Your task to perform on an android device: Add beats solo 3 to the cart on amazon.com Image 0: 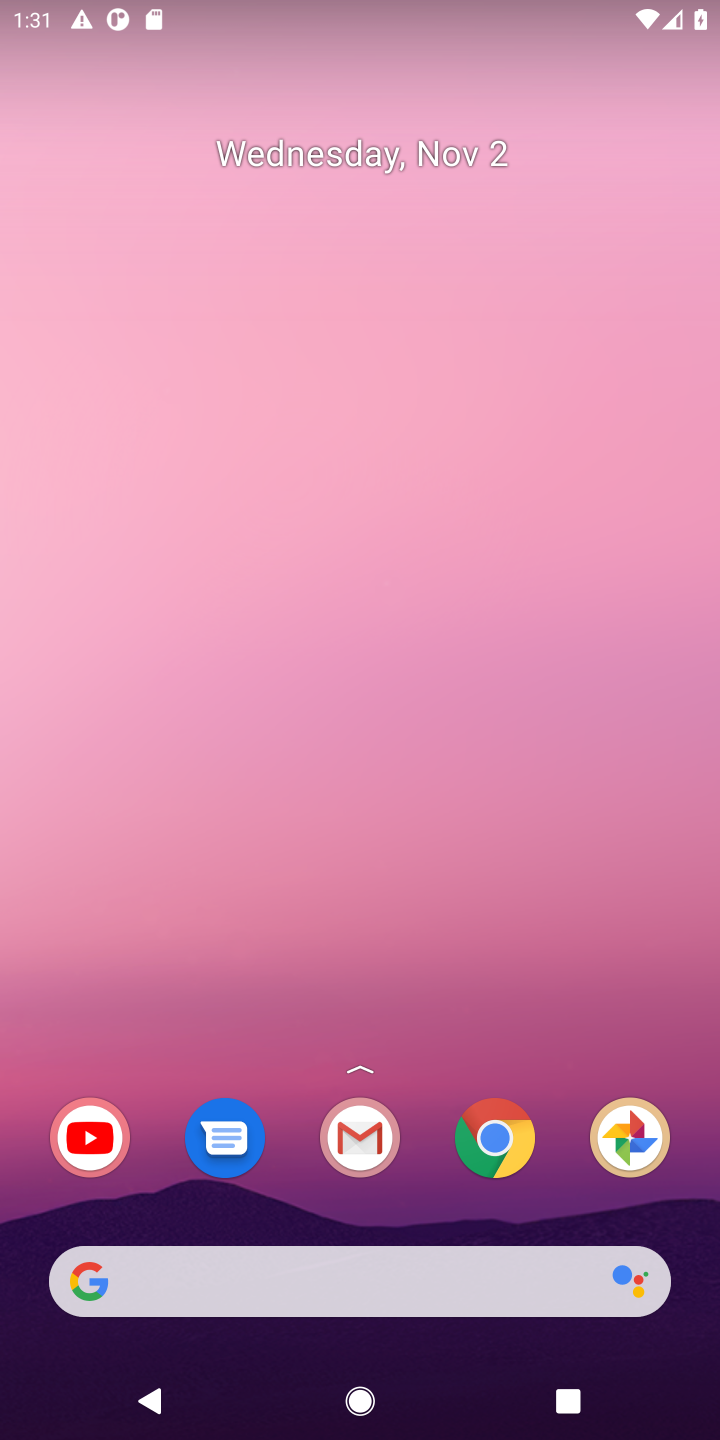
Step 0: press home button
Your task to perform on an android device: Add beats solo 3 to the cart on amazon.com Image 1: 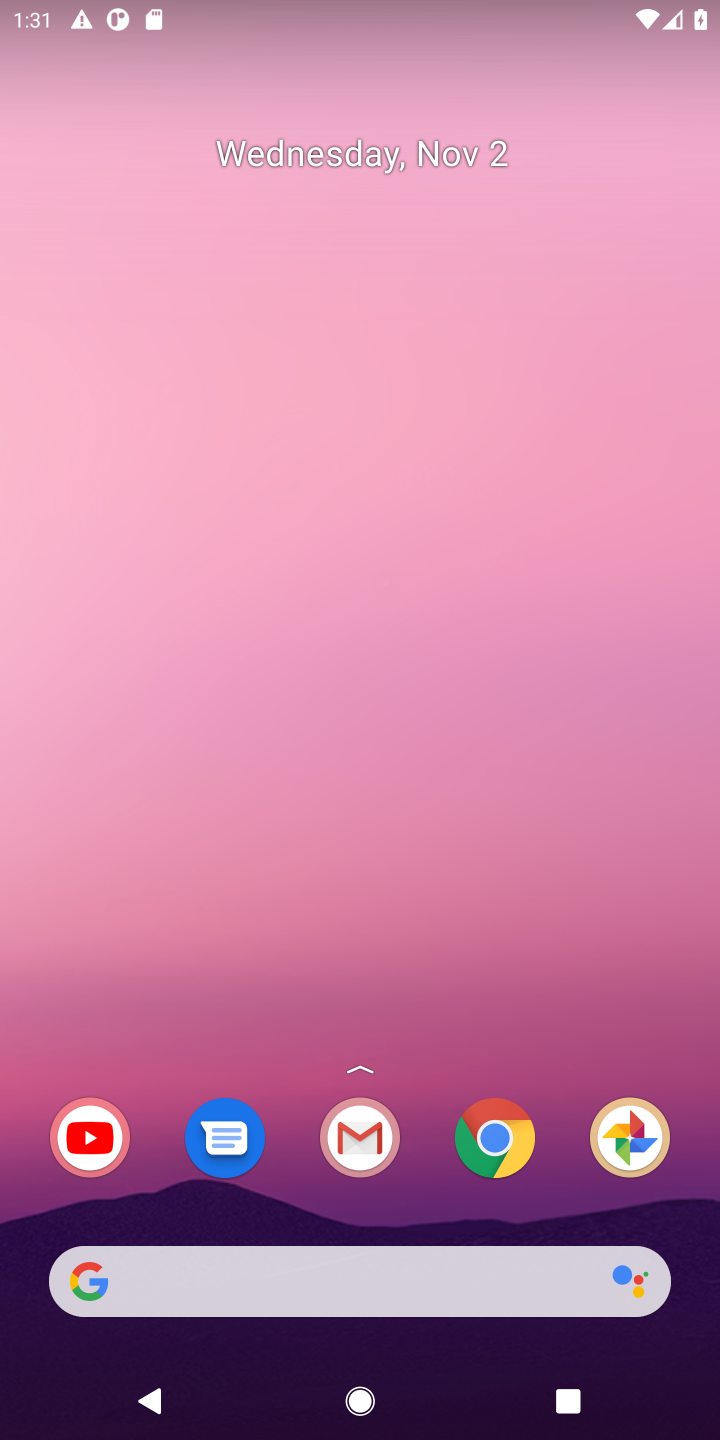
Step 1: click (193, 1267)
Your task to perform on an android device: Add beats solo 3 to the cart on amazon.com Image 2: 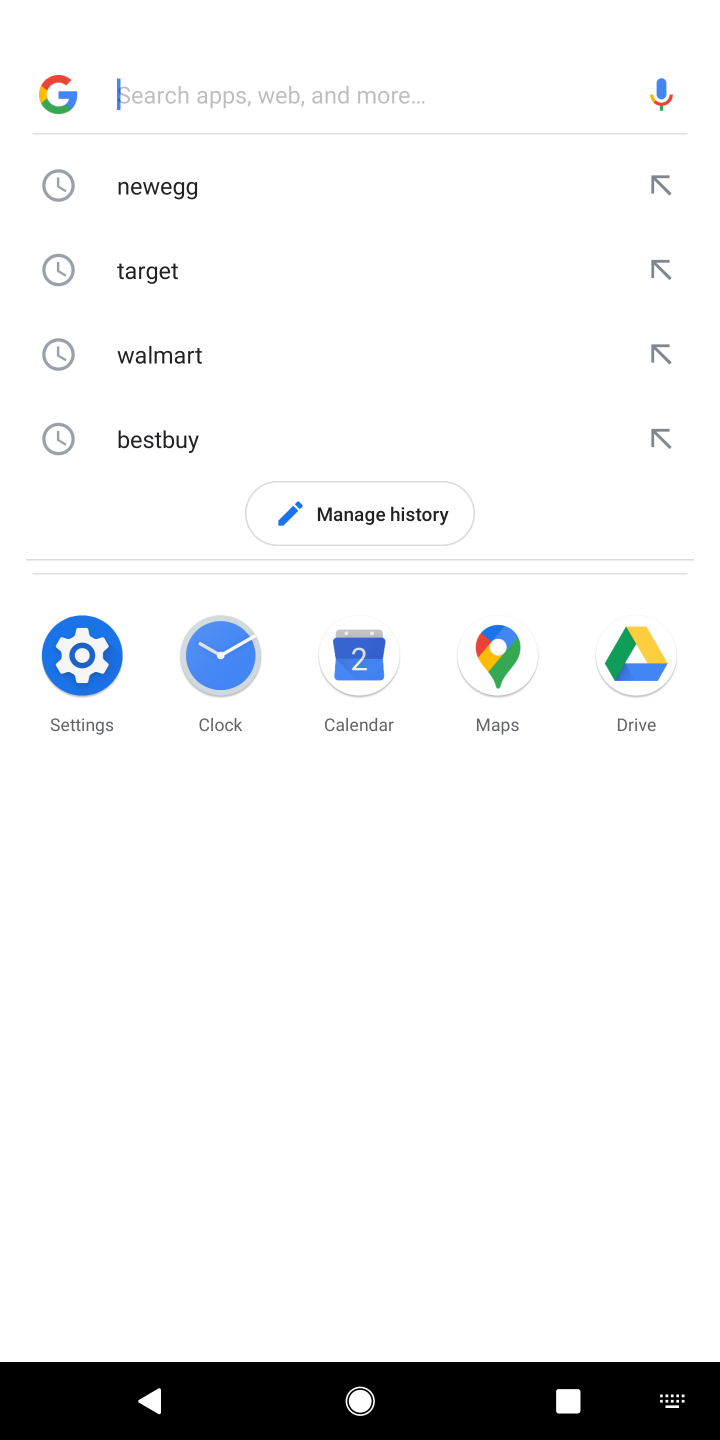
Step 2: type "amazon.com"
Your task to perform on an android device: Add beats solo 3 to the cart on amazon.com Image 3: 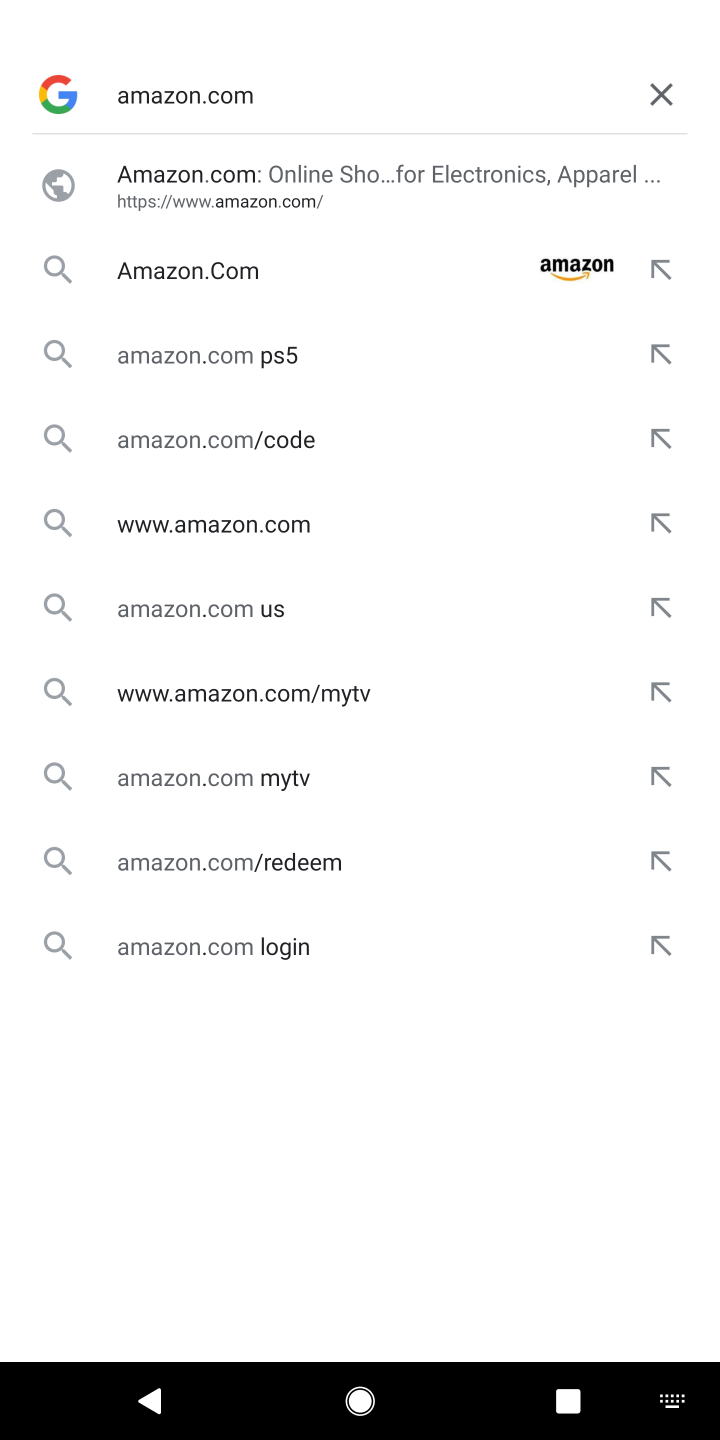
Step 3: press enter
Your task to perform on an android device: Add beats solo 3 to the cart on amazon.com Image 4: 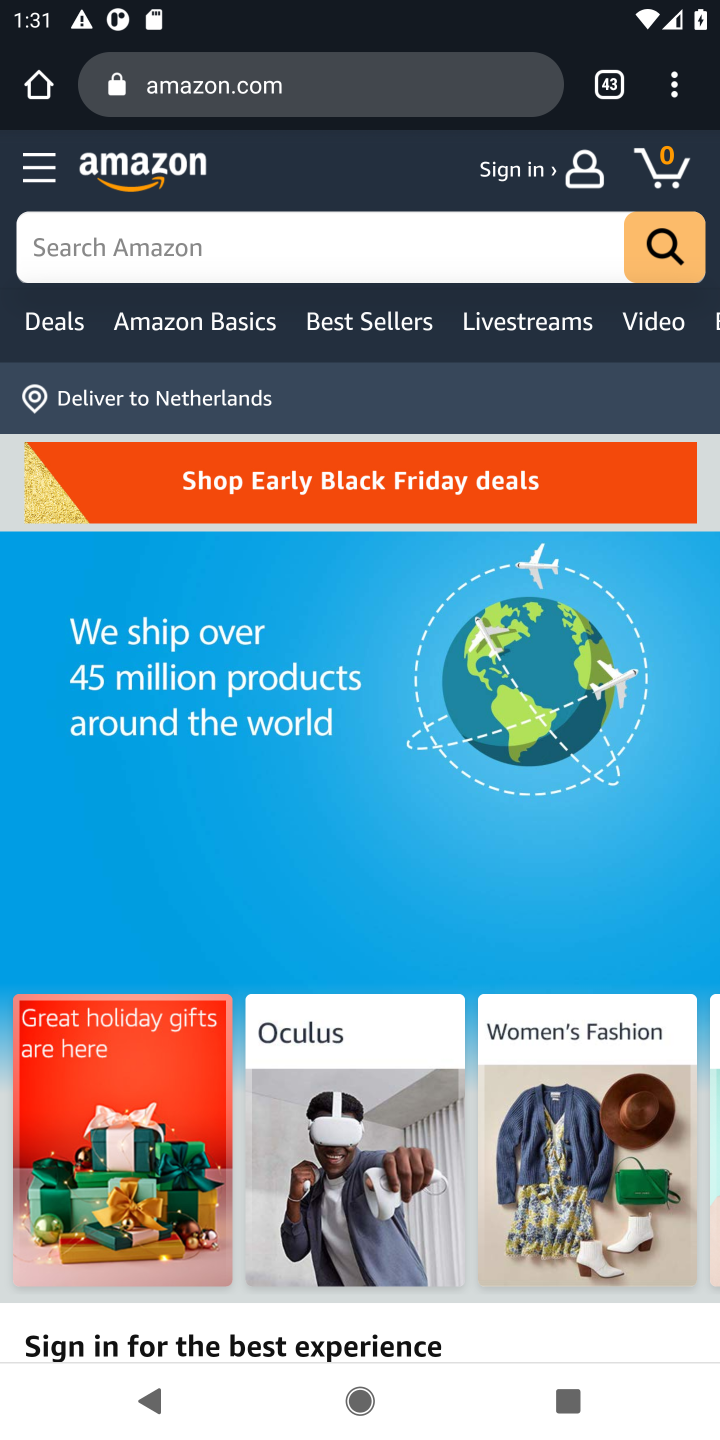
Step 4: click (151, 244)
Your task to perform on an android device: Add beats solo 3 to the cart on amazon.com Image 5: 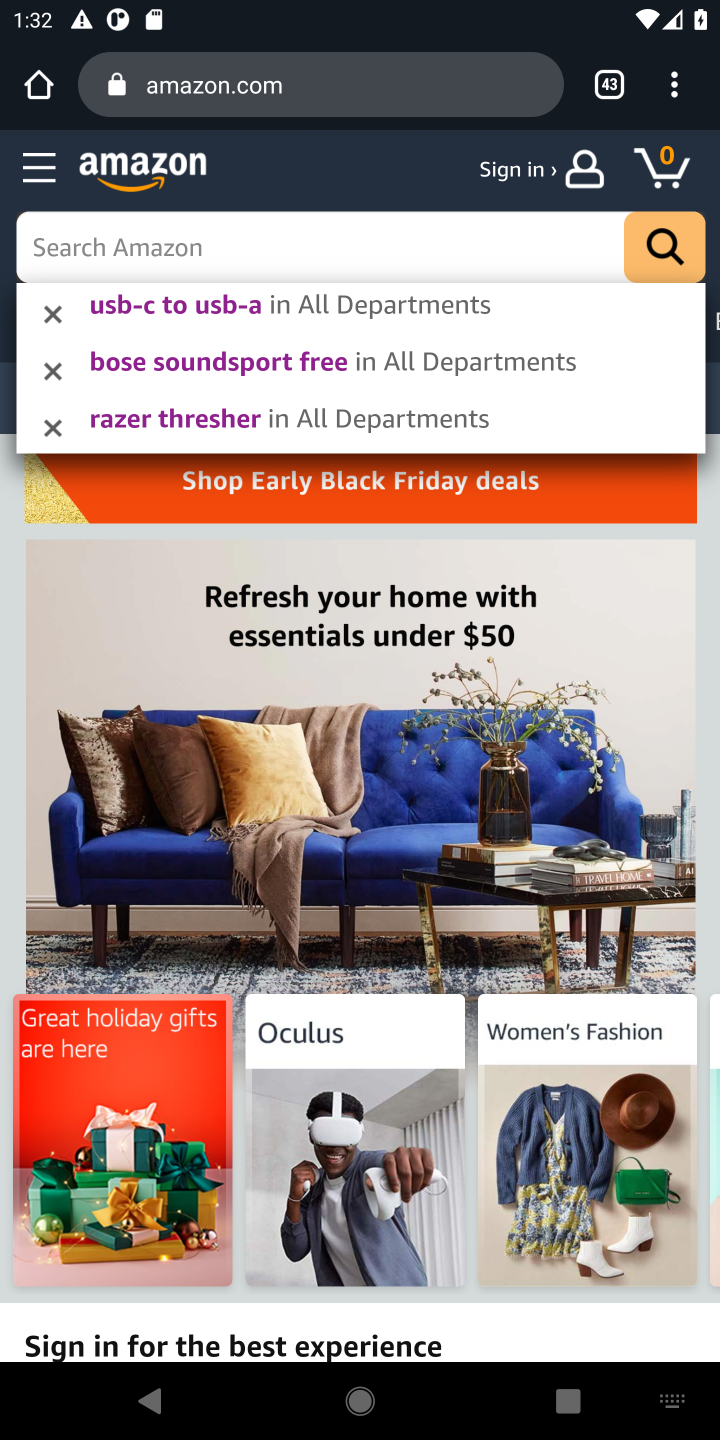
Step 5: type "beats solo 3"
Your task to perform on an android device: Add beats solo 3 to the cart on amazon.com Image 6: 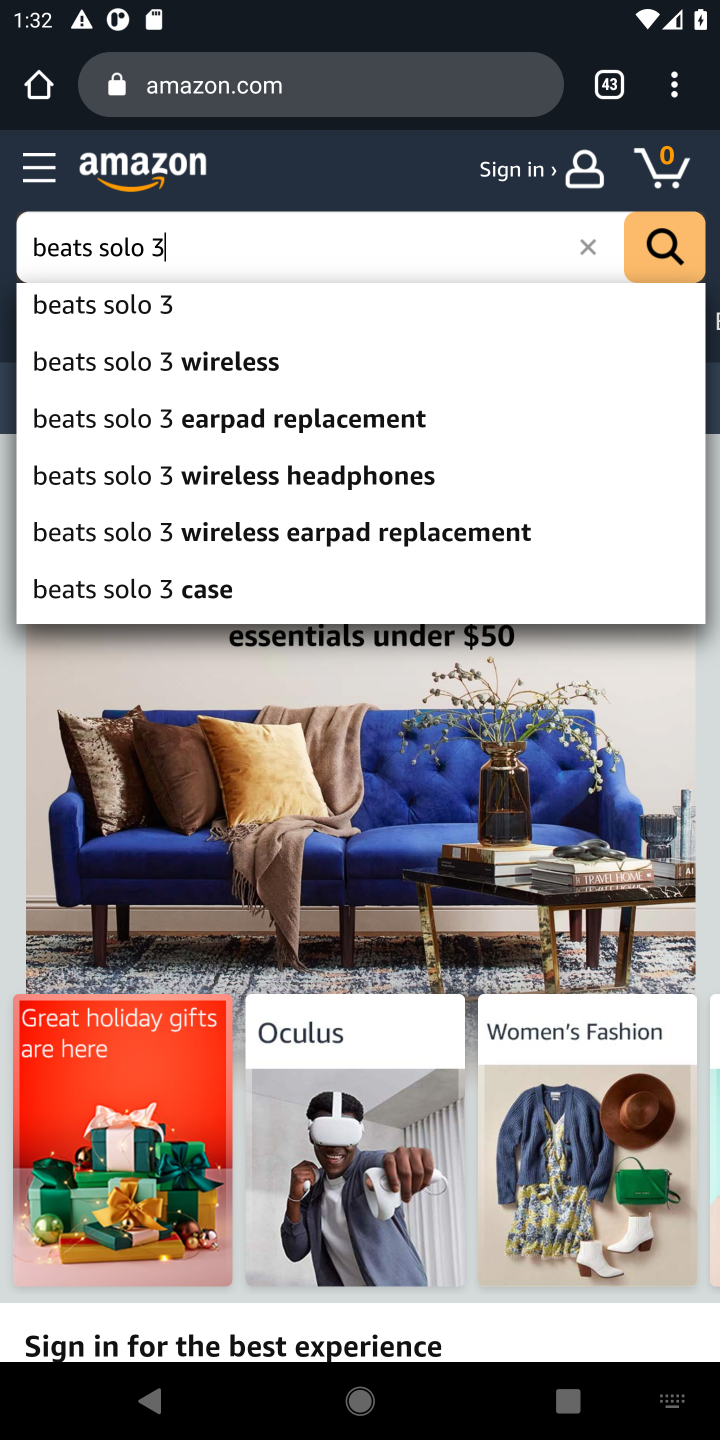
Step 6: click (669, 252)
Your task to perform on an android device: Add beats solo 3 to the cart on amazon.com Image 7: 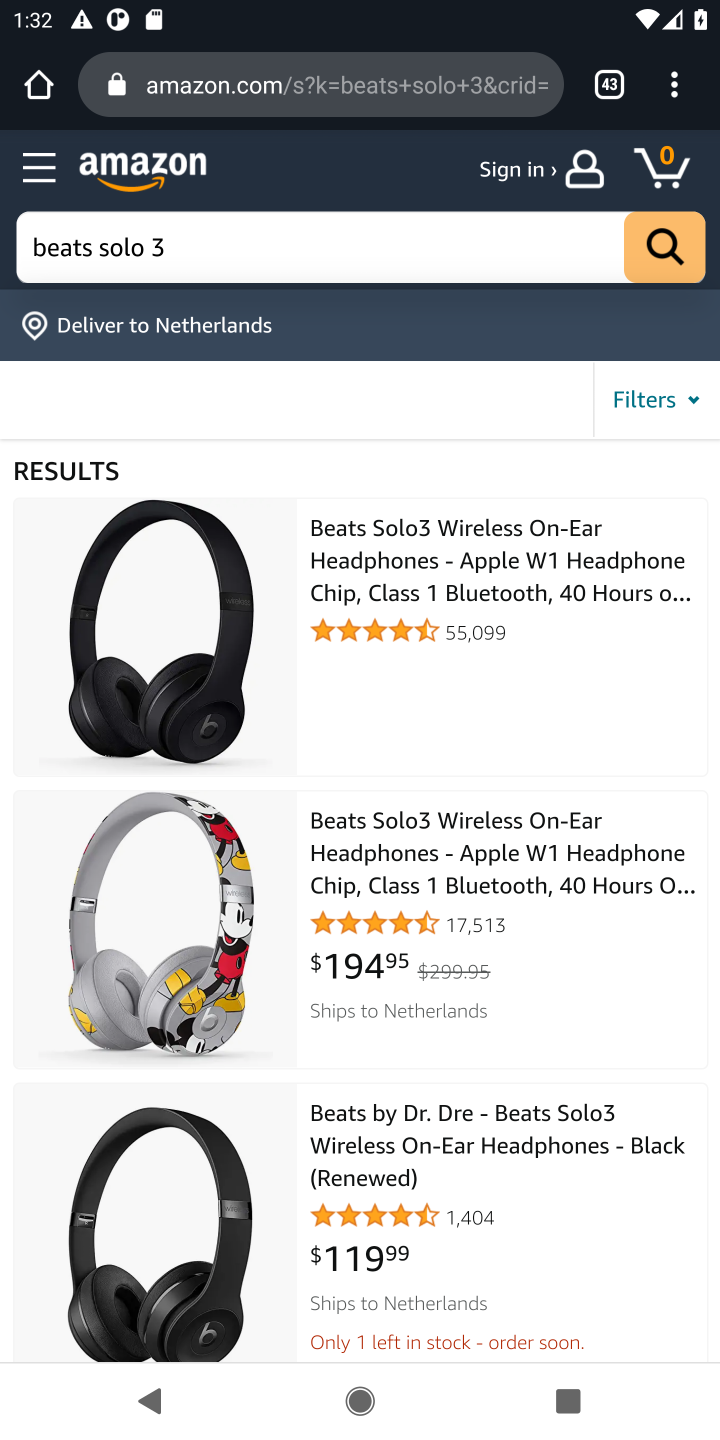
Step 7: click (516, 562)
Your task to perform on an android device: Add beats solo 3 to the cart on amazon.com Image 8: 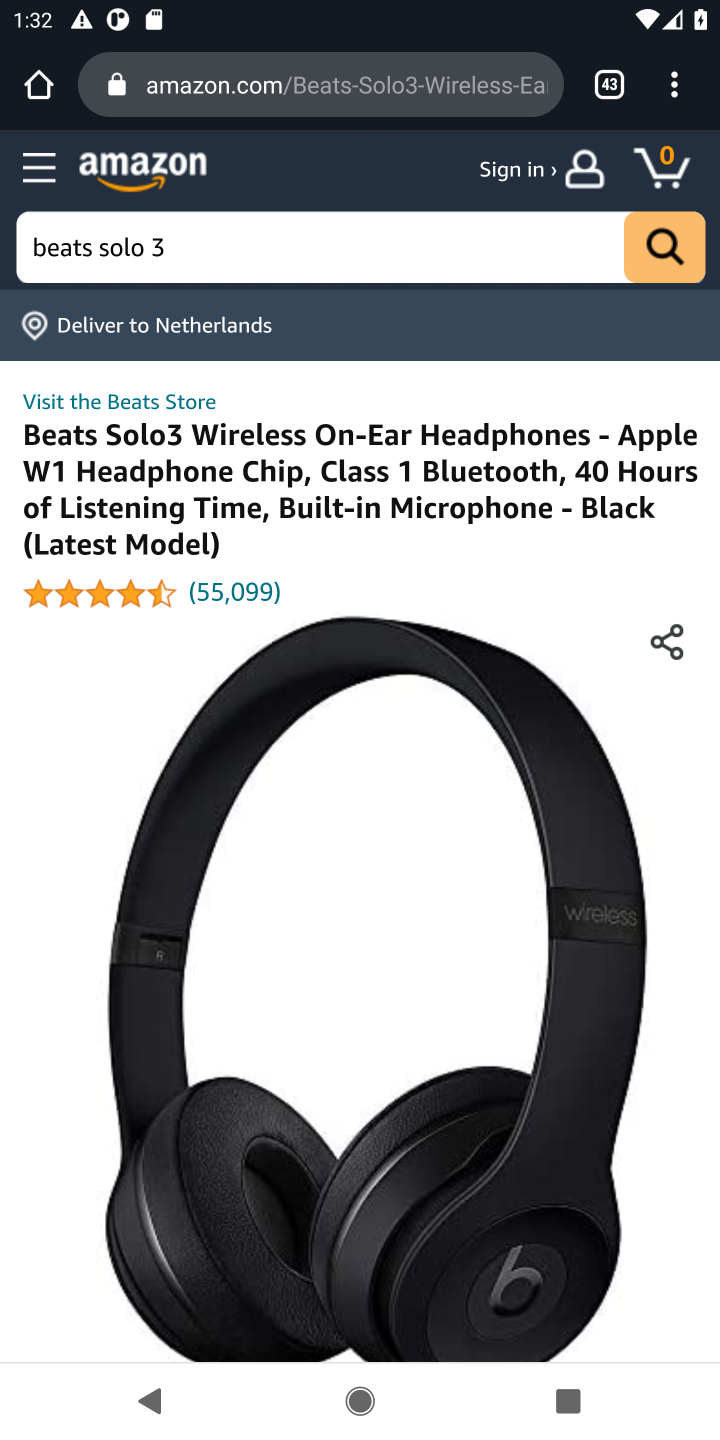
Step 8: drag from (448, 1025) to (465, 632)
Your task to perform on an android device: Add beats solo 3 to the cart on amazon.com Image 9: 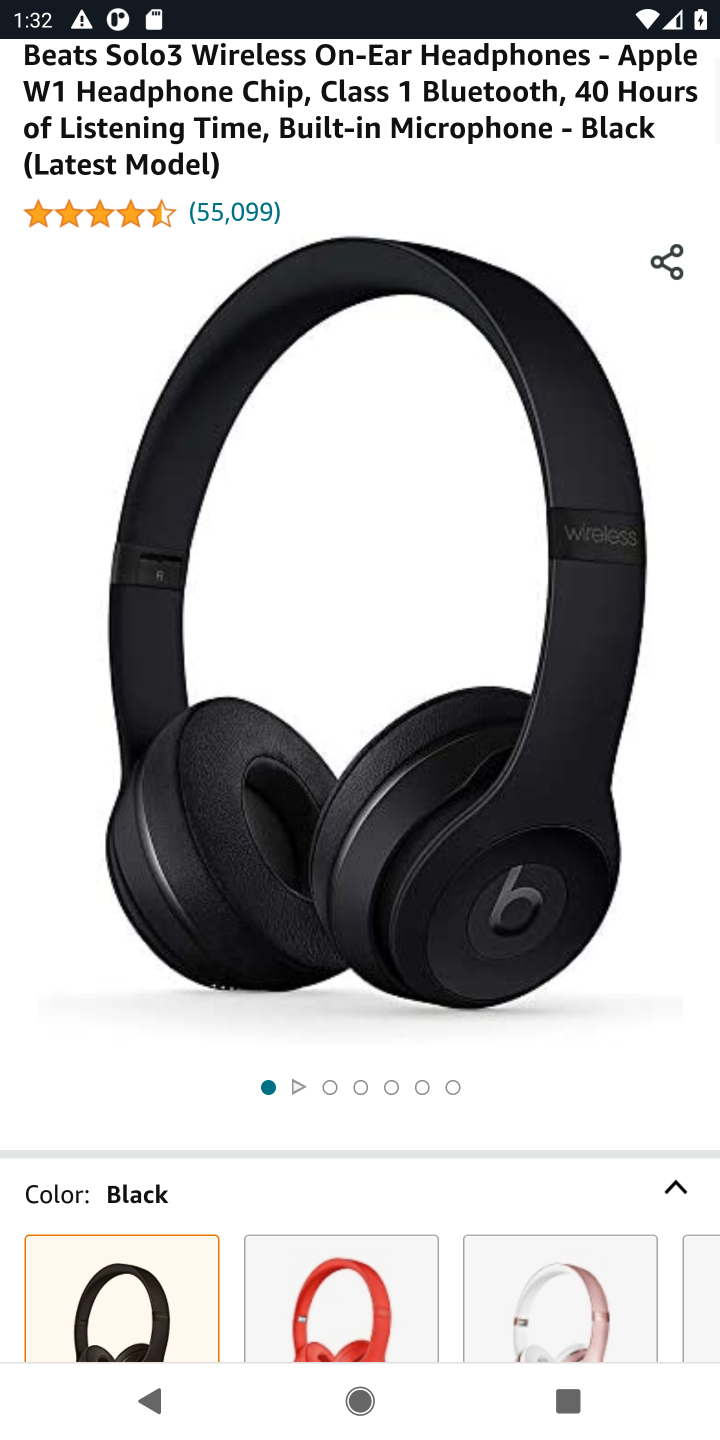
Step 9: drag from (387, 1003) to (479, 592)
Your task to perform on an android device: Add beats solo 3 to the cart on amazon.com Image 10: 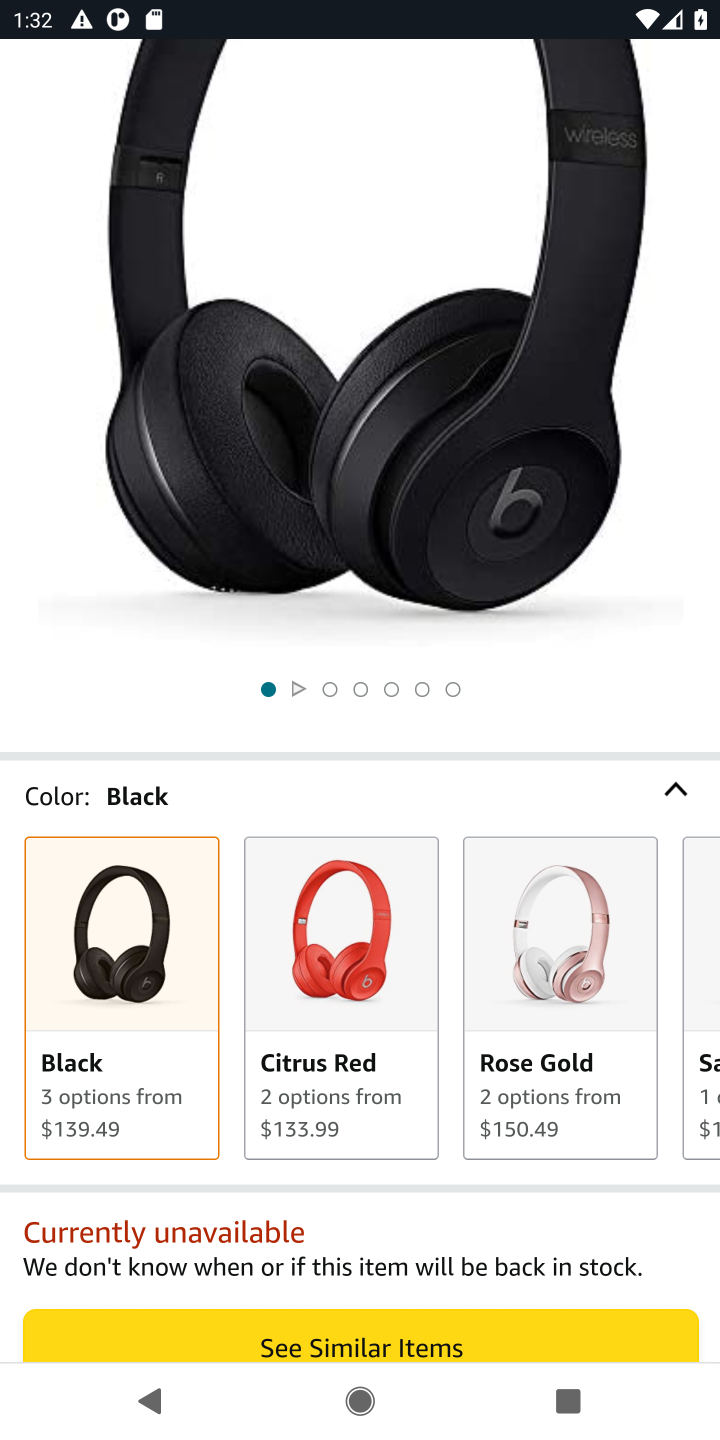
Step 10: drag from (425, 893) to (468, 564)
Your task to perform on an android device: Add beats solo 3 to the cart on amazon.com Image 11: 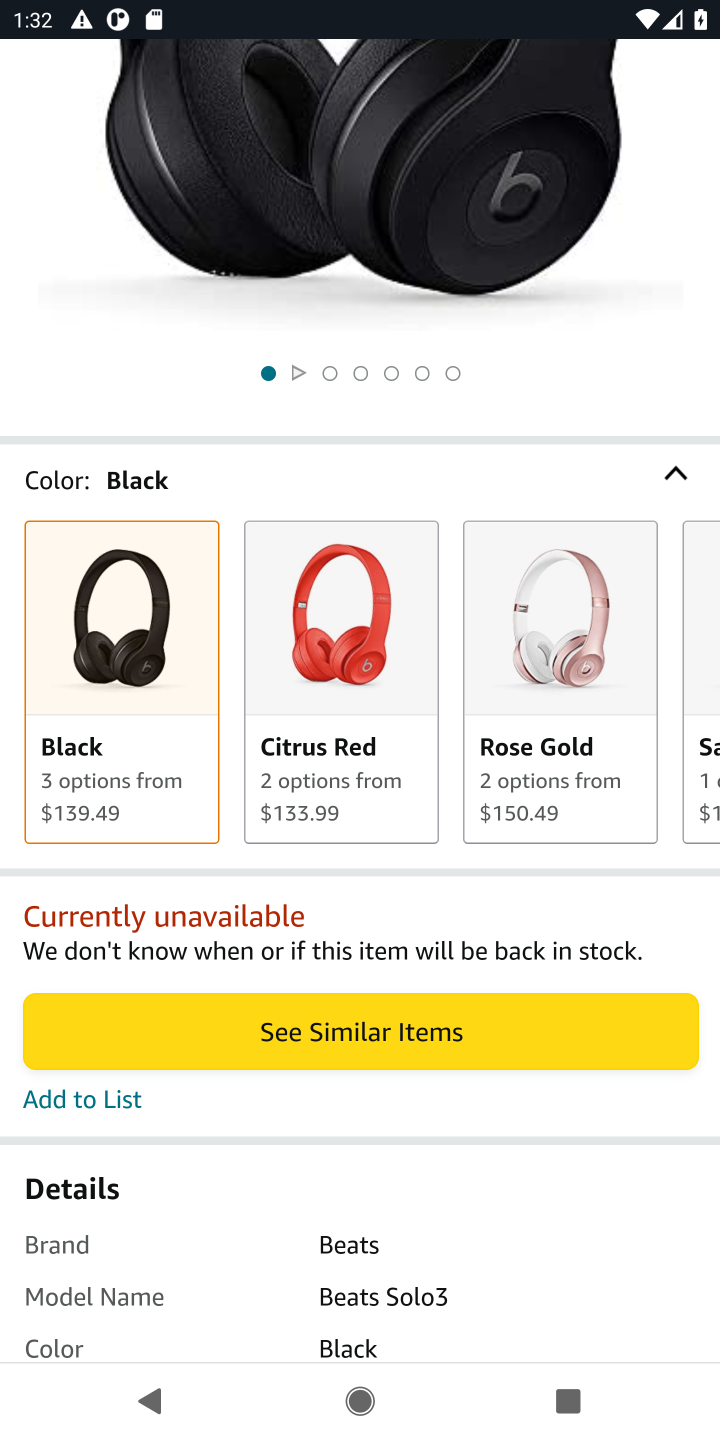
Step 11: drag from (478, 1095) to (542, 667)
Your task to perform on an android device: Add beats solo 3 to the cart on amazon.com Image 12: 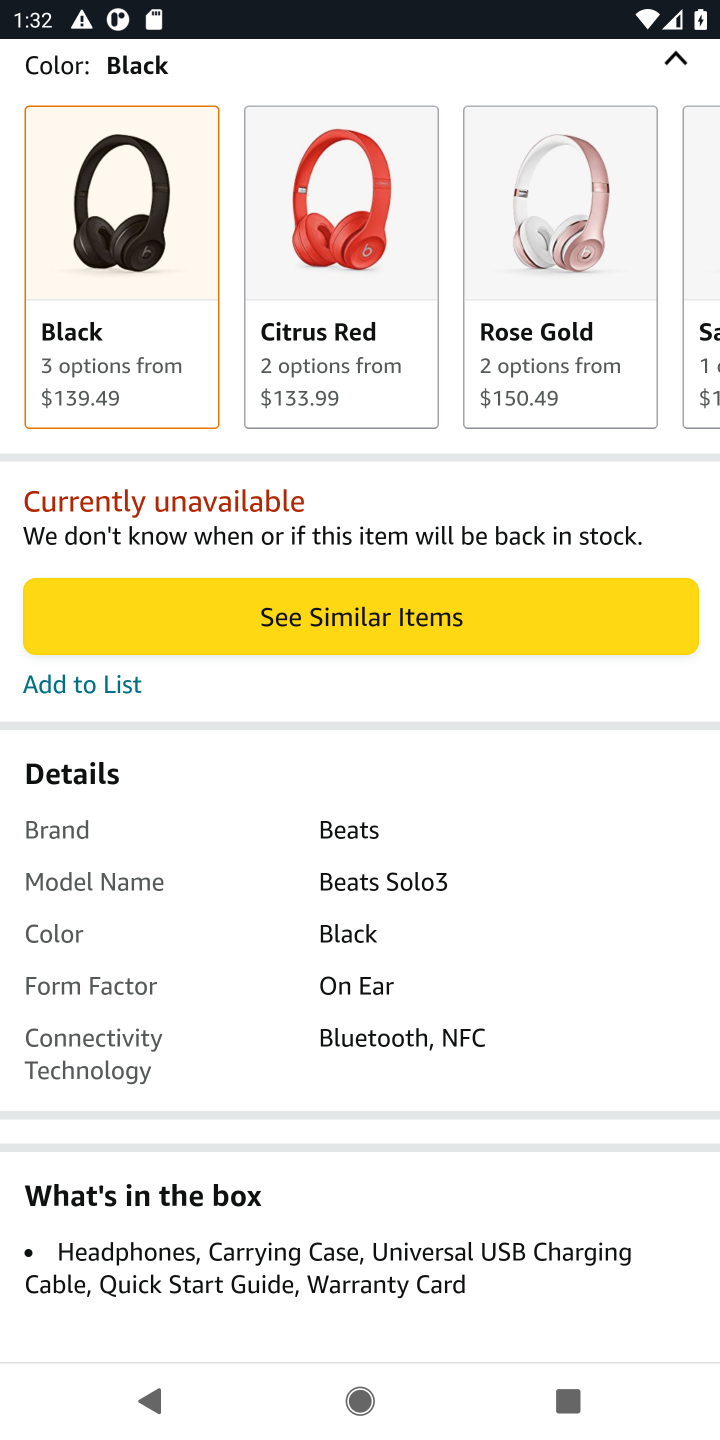
Step 12: drag from (464, 1129) to (520, 672)
Your task to perform on an android device: Add beats solo 3 to the cart on amazon.com Image 13: 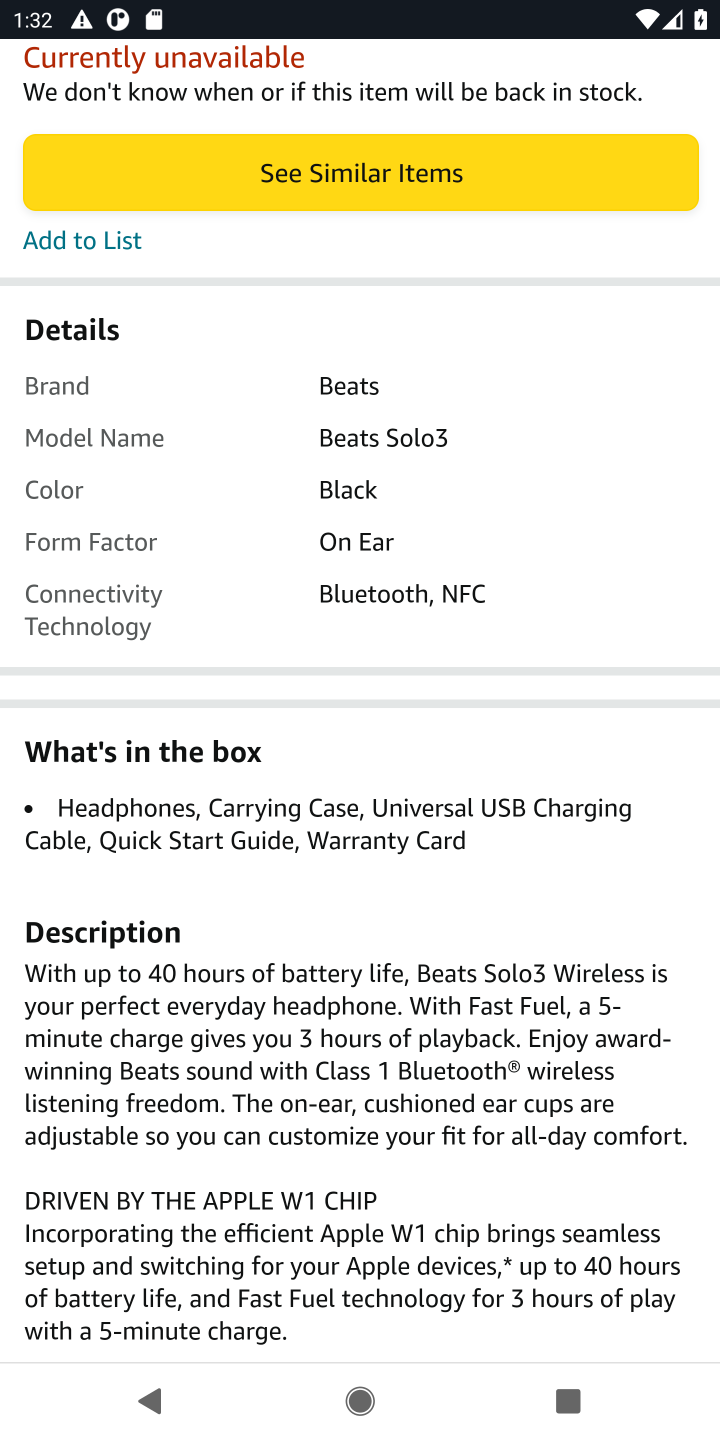
Step 13: press back button
Your task to perform on an android device: Add beats solo 3 to the cart on amazon.com Image 14: 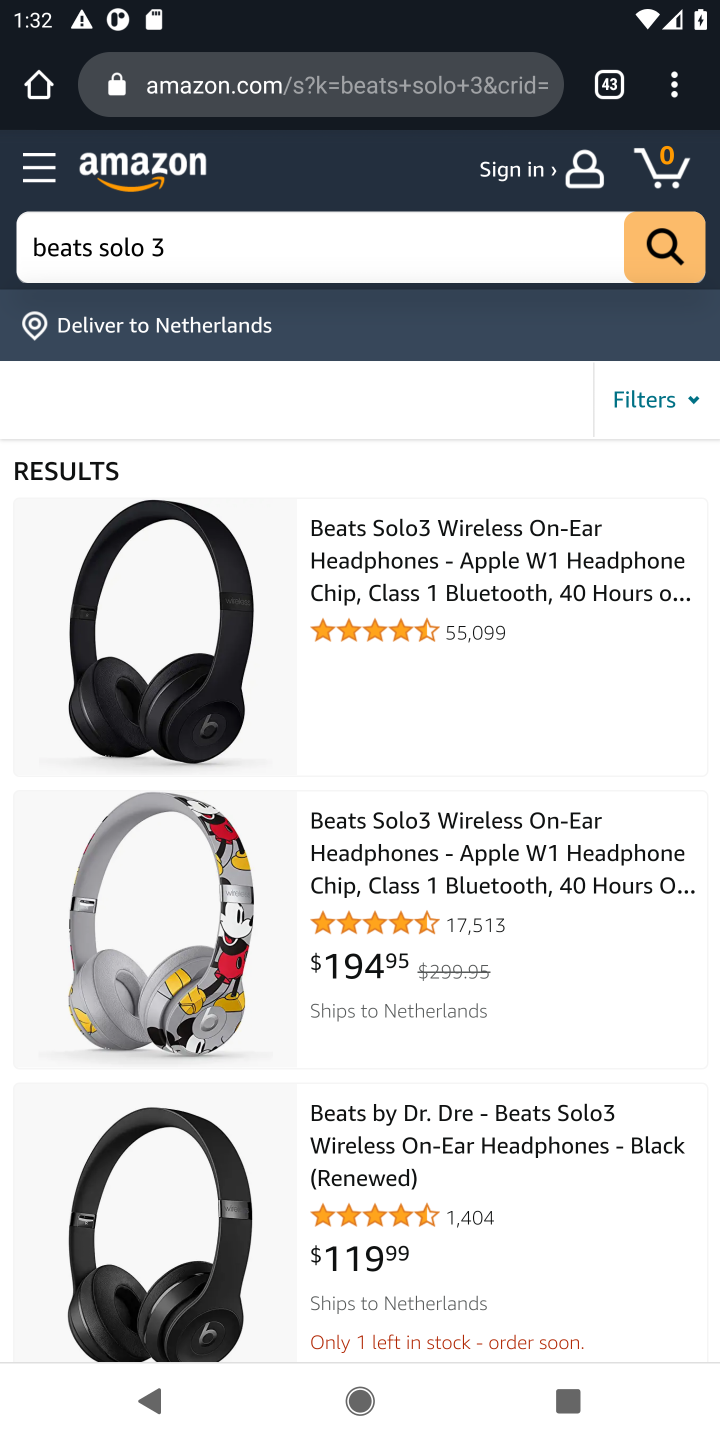
Step 14: click (475, 871)
Your task to perform on an android device: Add beats solo 3 to the cart on amazon.com Image 15: 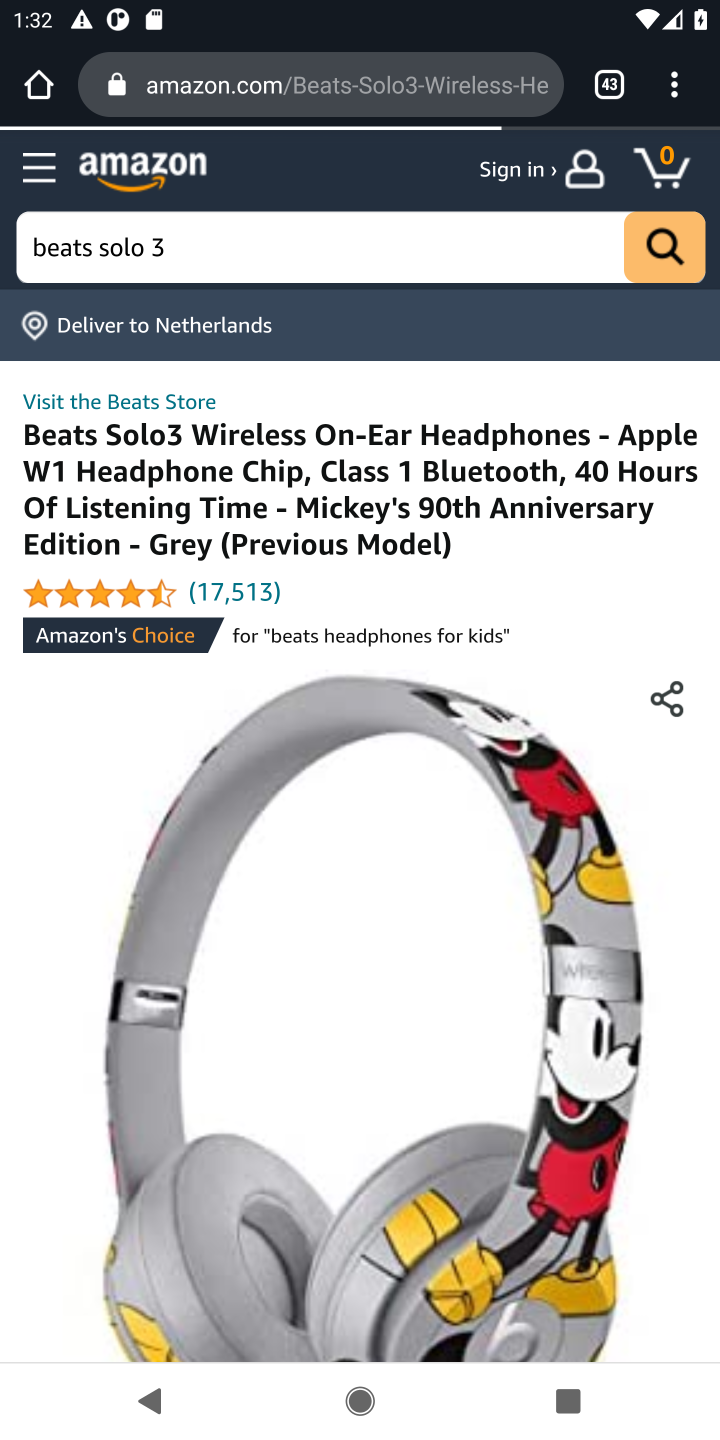
Step 15: drag from (428, 969) to (471, 656)
Your task to perform on an android device: Add beats solo 3 to the cart on amazon.com Image 16: 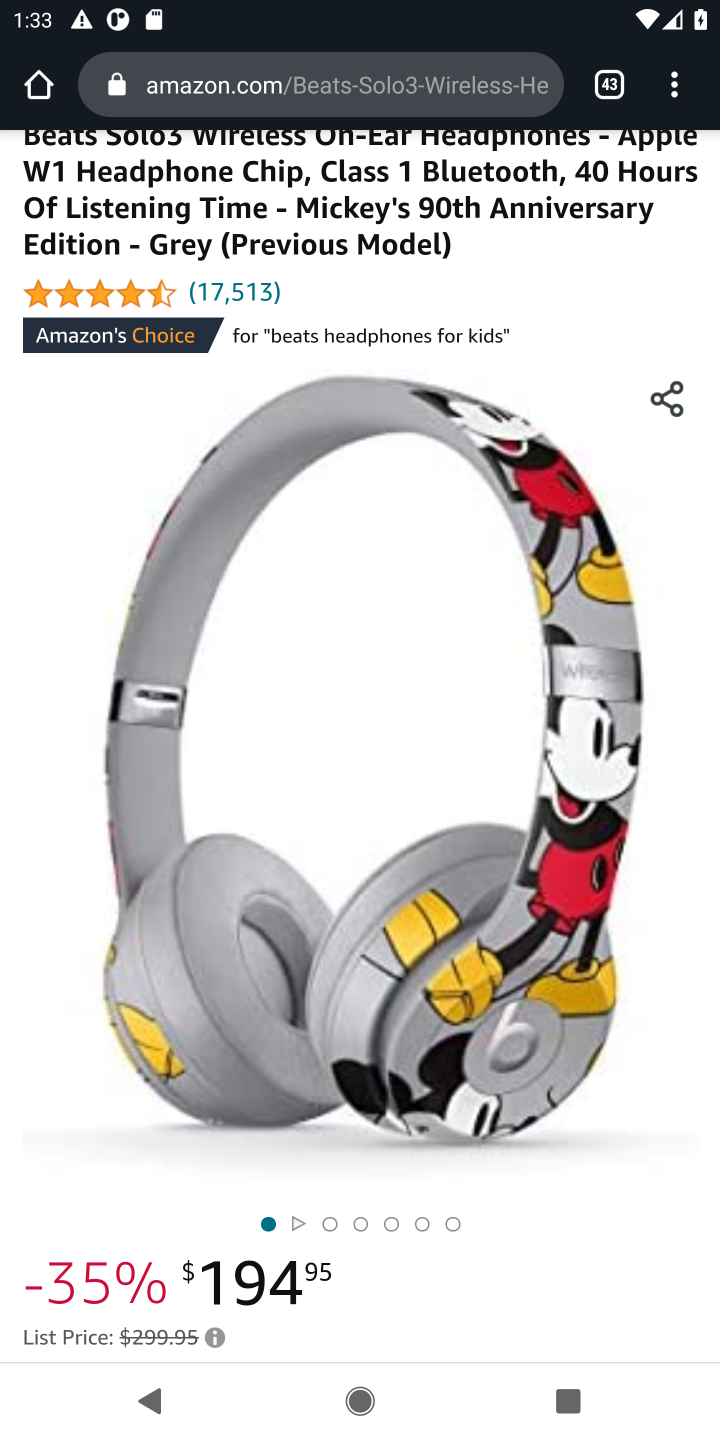
Step 16: drag from (464, 954) to (491, 768)
Your task to perform on an android device: Add beats solo 3 to the cart on amazon.com Image 17: 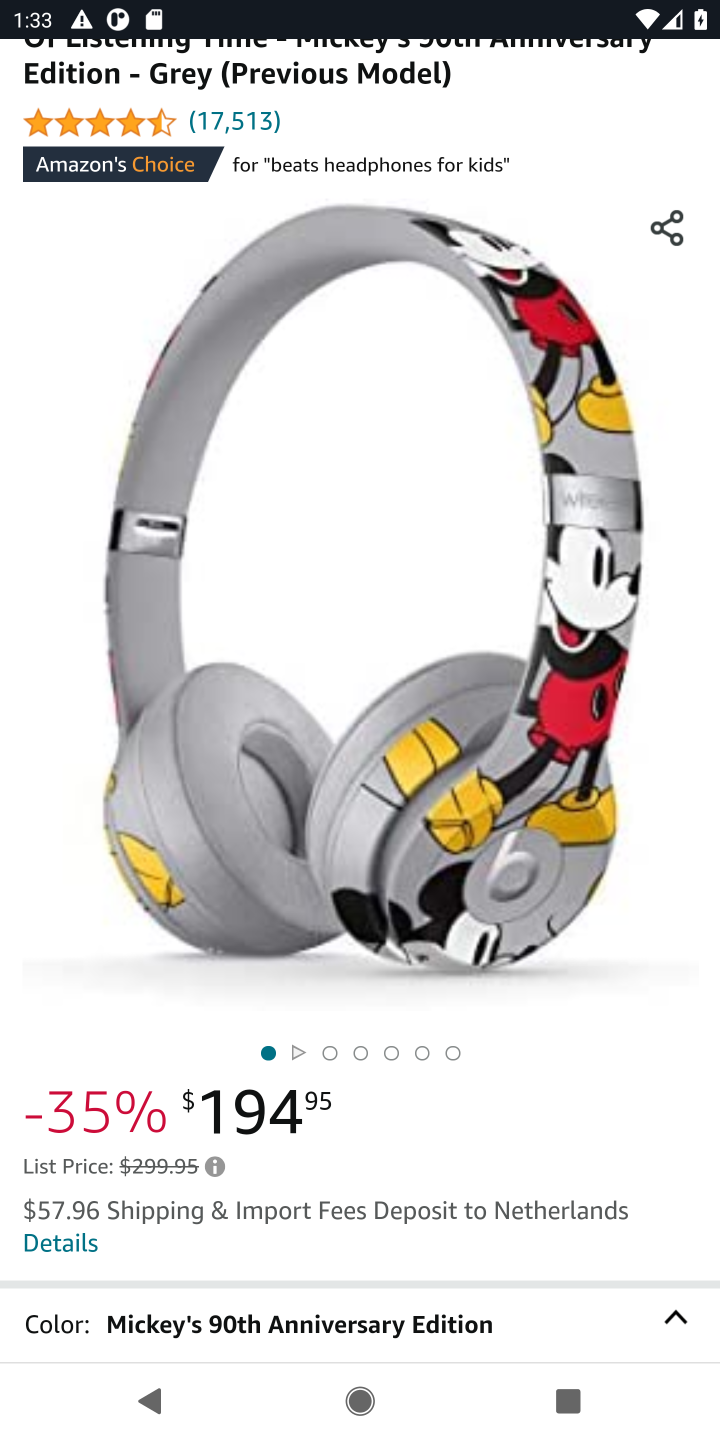
Step 17: drag from (418, 1055) to (455, 658)
Your task to perform on an android device: Add beats solo 3 to the cart on amazon.com Image 18: 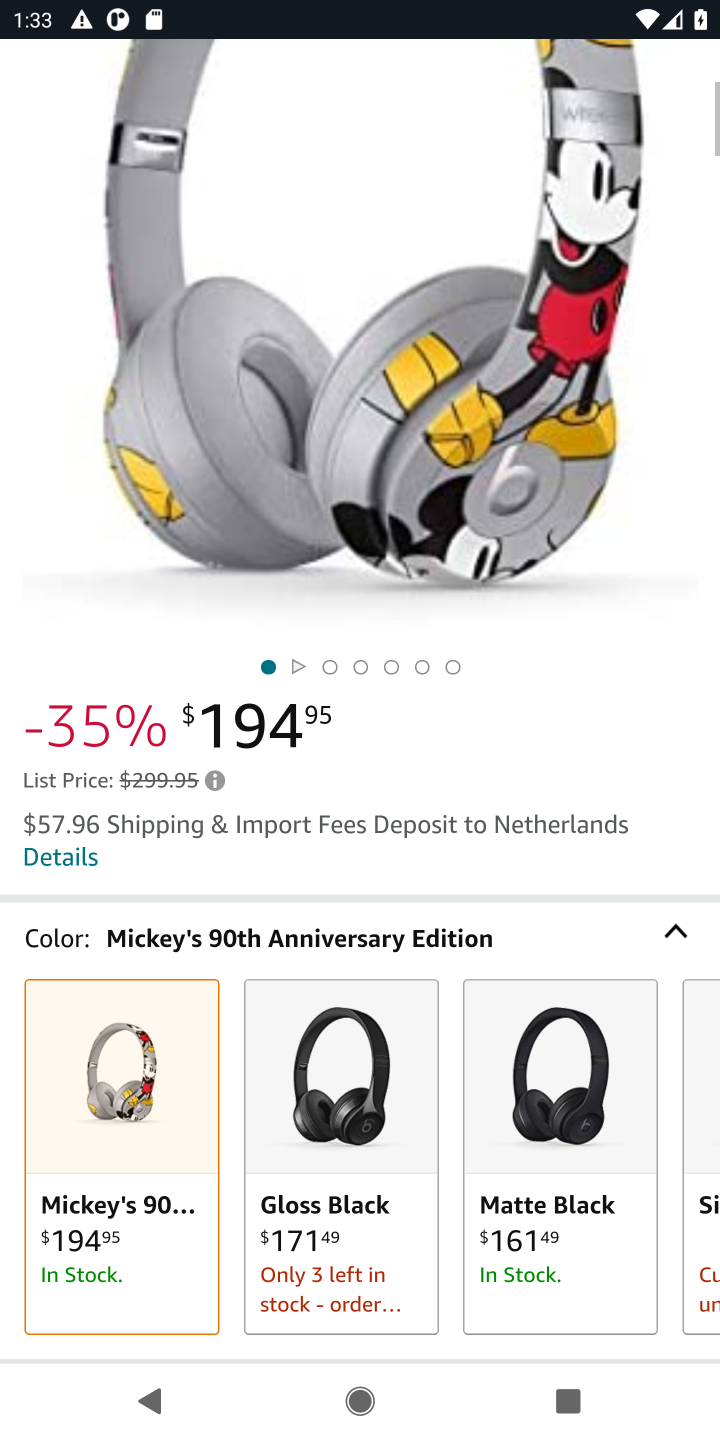
Step 18: drag from (457, 1116) to (475, 652)
Your task to perform on an android device: Add beats solo 3 to the cart on amazon.com Image 19: 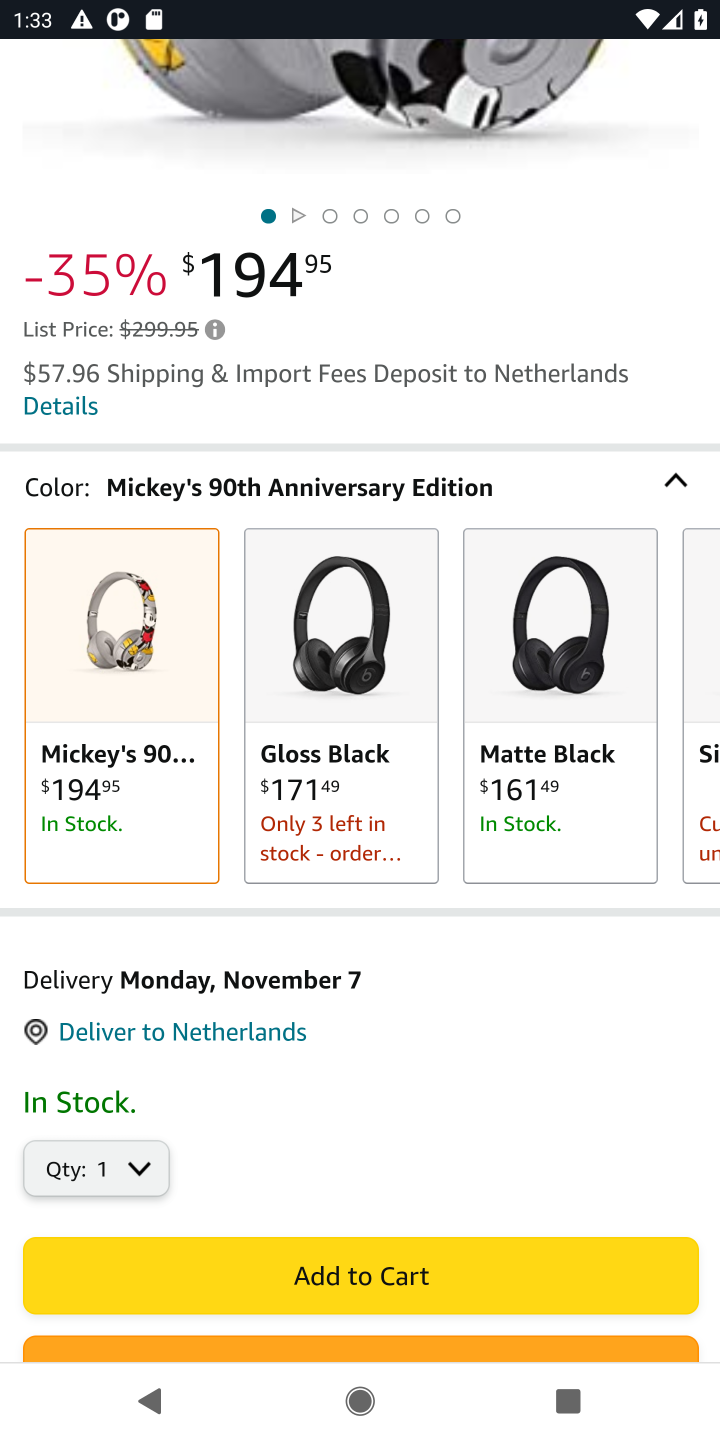
Step 19: drag from (529, 1087) to (537, 528)
Your task to perform on an android device: Add beats solo 3 to the cart on amazon.com Image 20: 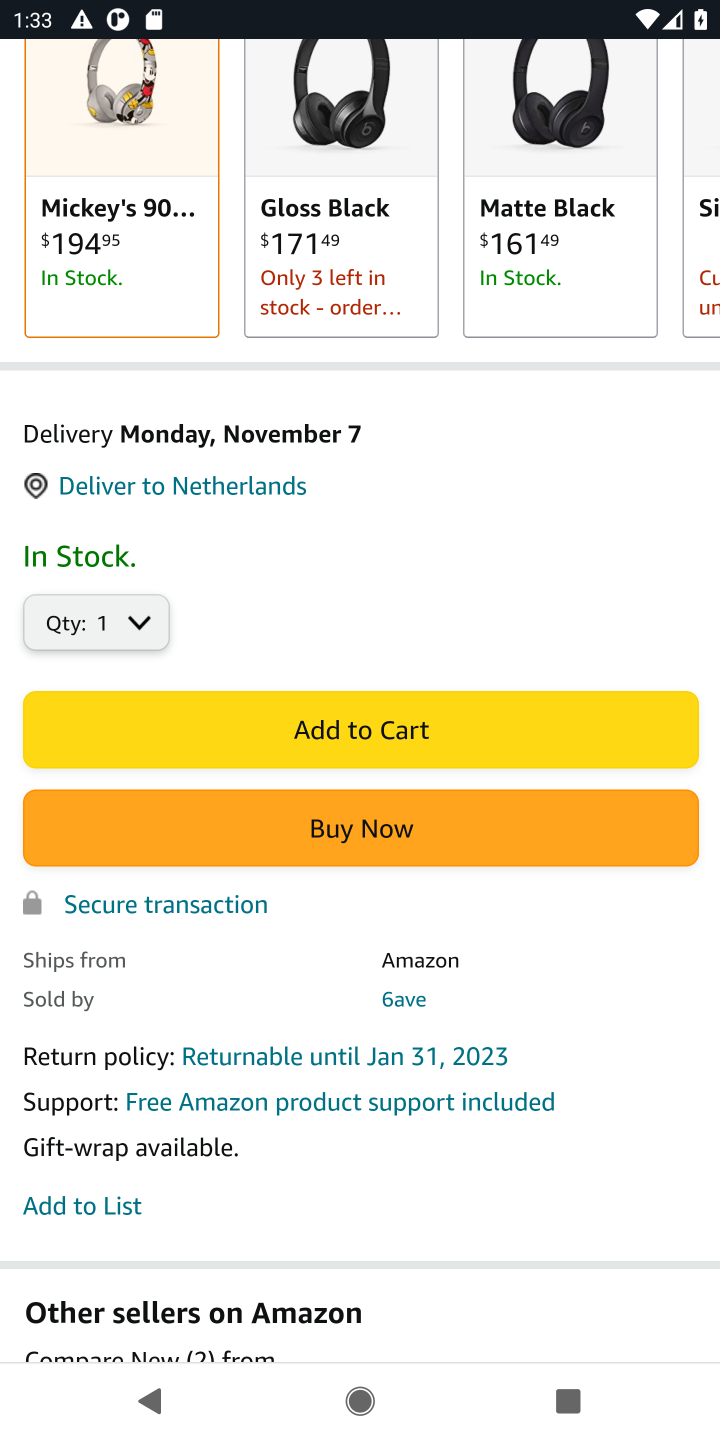
Step 20: click (346, 732)
Your task to perform on an android device: Add beats solo 3 to the cart on amazon.com Image 21: 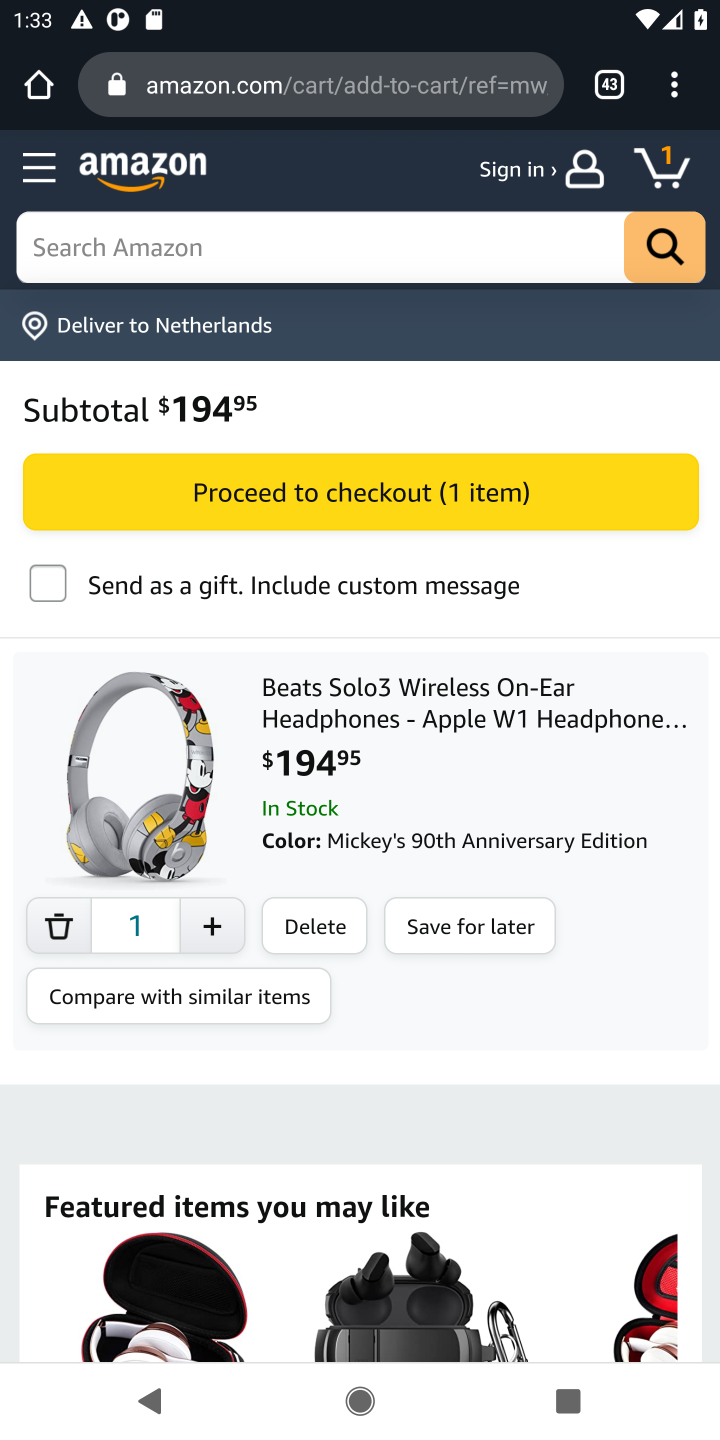
Step 21: task complete